Your task to perform on an android device: Open location settings Image 0: 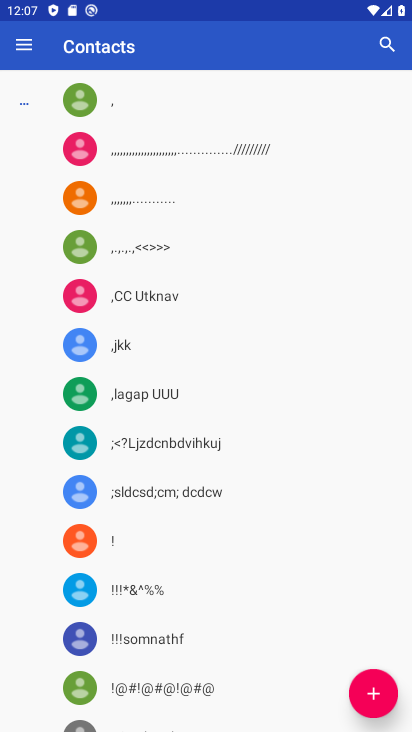
Step 0: click (245, 682)
Your task to perform on an android device: Open location settings Image 1: 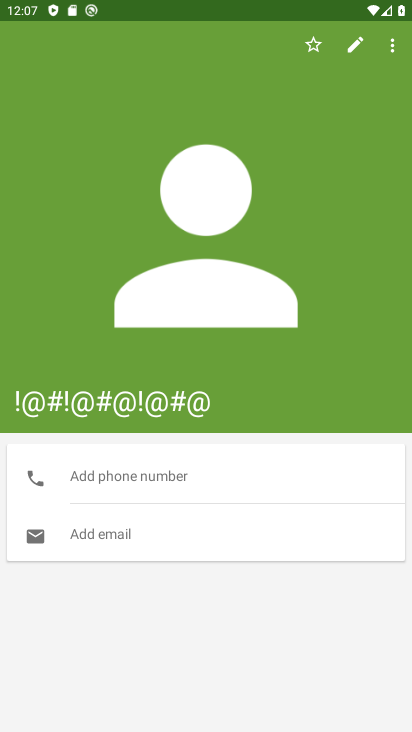
Step 1: press home button
Your task to perform on an android device: Open location settings Image 2: 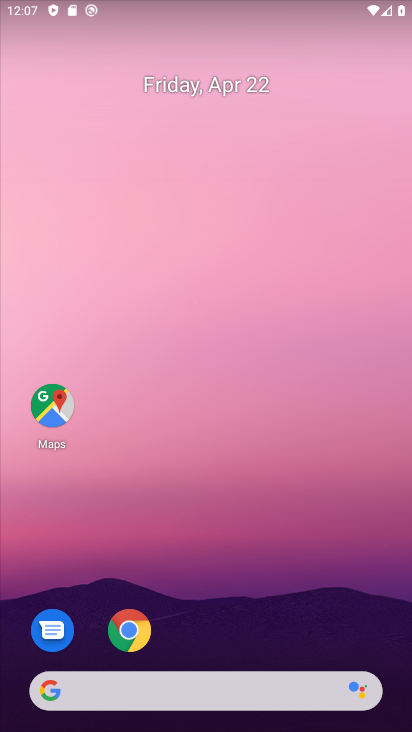
Step 2: drag from (291, 714) to (243, 238)
Your task to perform on an android device: Open location settings Image 3: 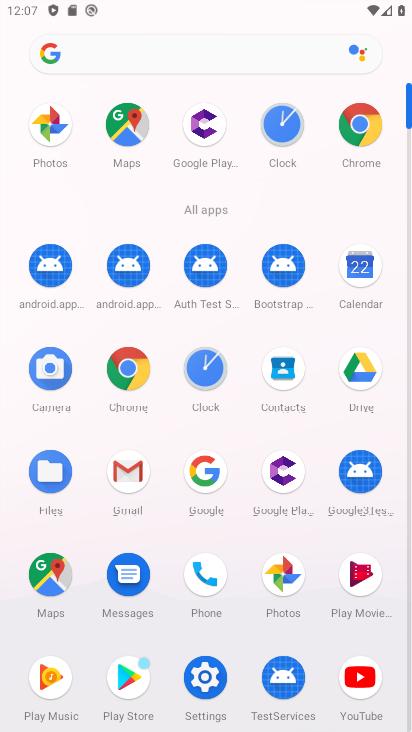
Step 3: click (214, 660)
Your task to perform on an android device: Open location settings Image 4: 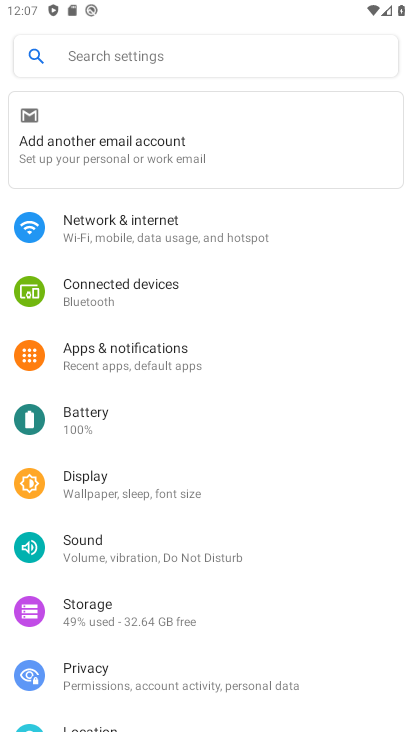
Step 4: drag from (255, 633) to (283, 284)
Your task to perform on an android device: Open location settings Image 5: 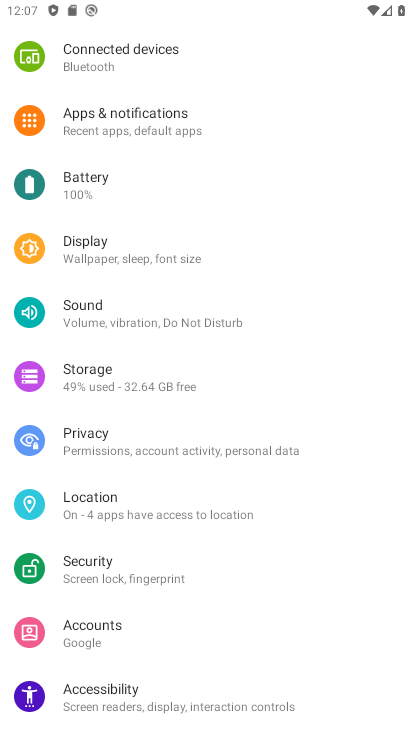
Step 5: click (194, 512)
Your task to perform on an android device: Open location settings Image 6: 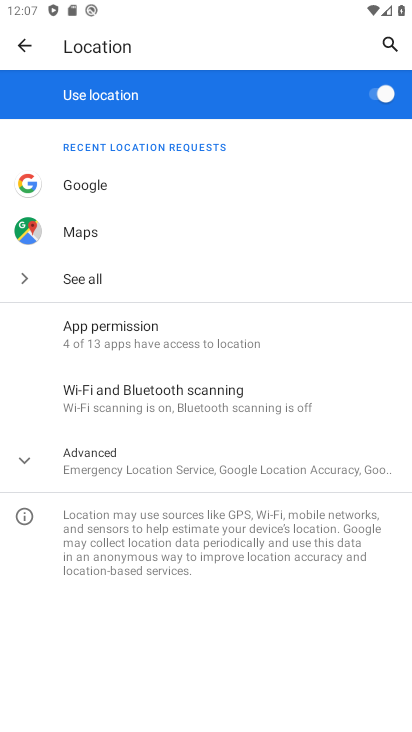
Step 6: task complete